Your task to perform on an android device: Show me popular games on the Play Store Image 0: 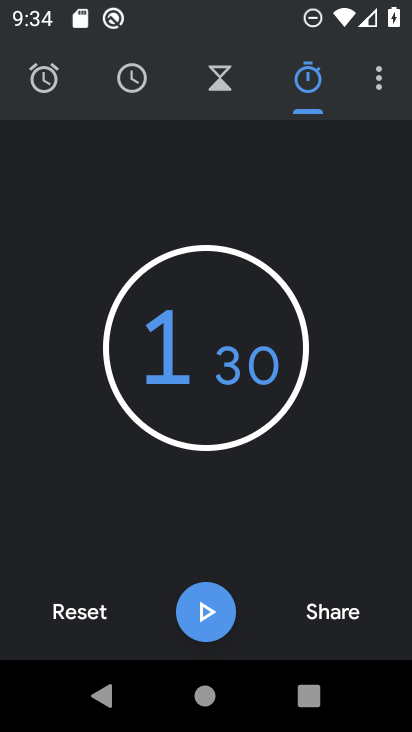
Step 0: press home button
Your task to perform on an android device: Show me popular games on the Play Store Image 1: 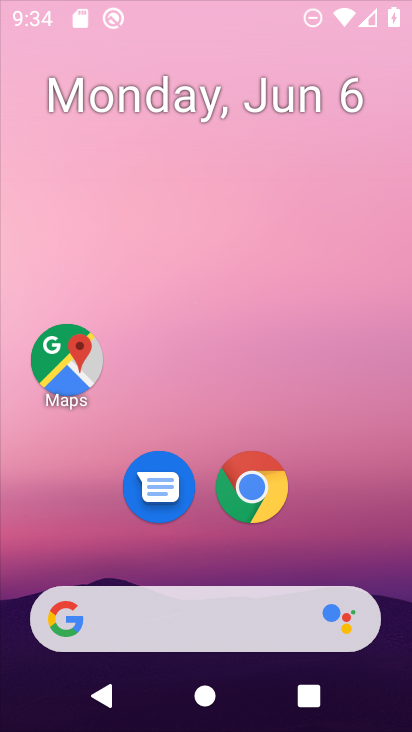
Step 1: drag from (388, 659) to (298, 55)
Your task to perform on an android device: Show me popular games on the Play Store Image 2: 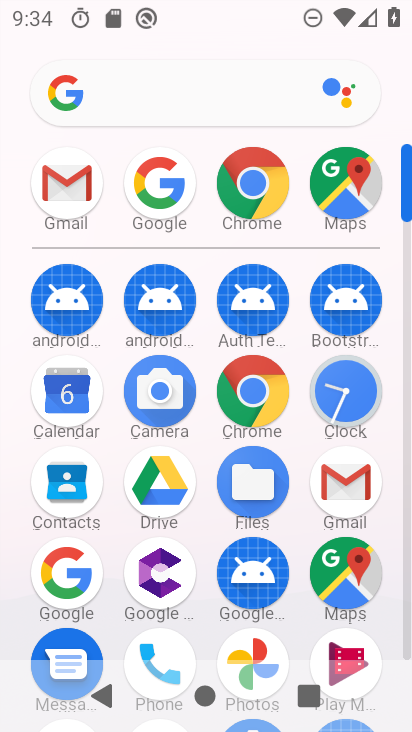
Step 2: click (206, 625)
Your task to perform on an android device: Show me popular games on the Play Store Image 3: 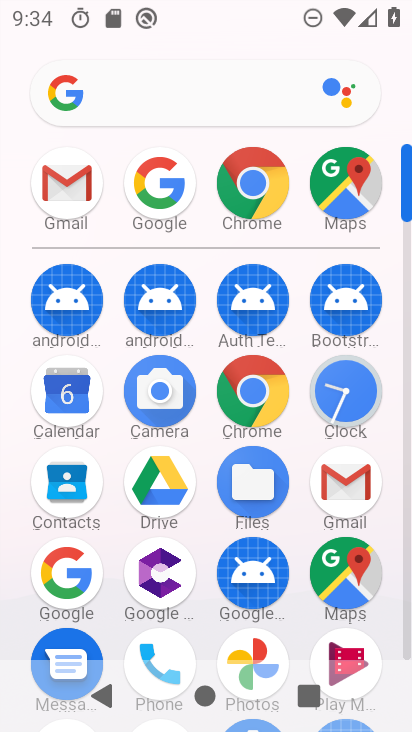
Step 3: drag from (193, 470) to (193, 192)
Your task to perform on an android device: Show me popular games on the Play Store Image 4: 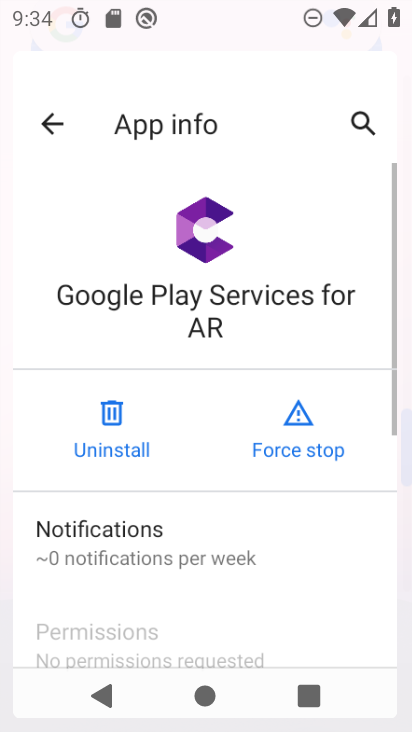
Step 4: click (150, 582)
Your task to perform on an android device: Show me popular games on the Play Store Image 5: 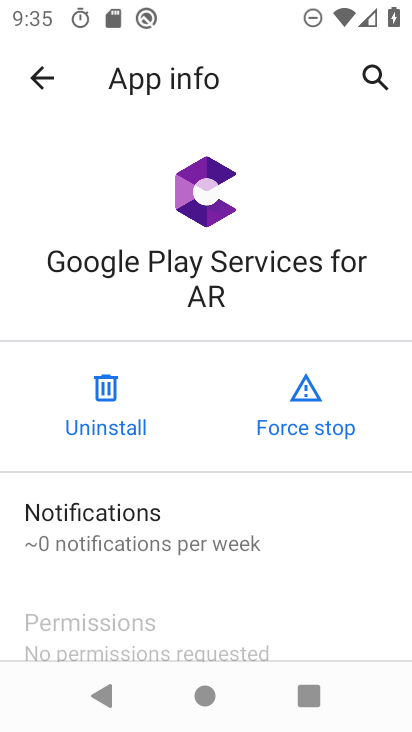
Step 5: task complete